Your task to perform on an android device: turn off improve location accuracy Image 0: 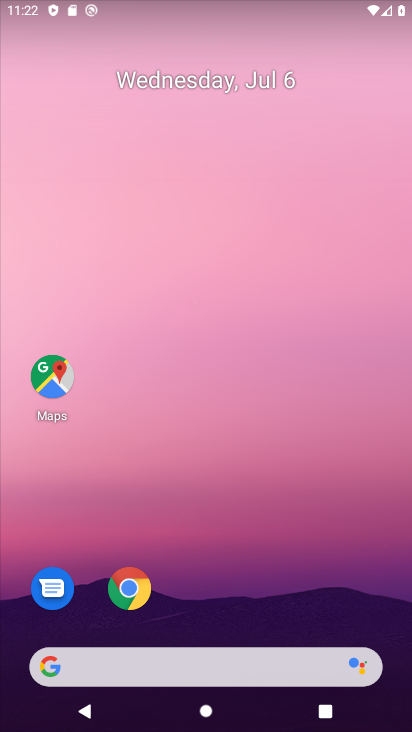
Step 0: drag from (228, 525) to (254, 2)
Your task to perform on an android device: turn off improve location accuracy Image 1: 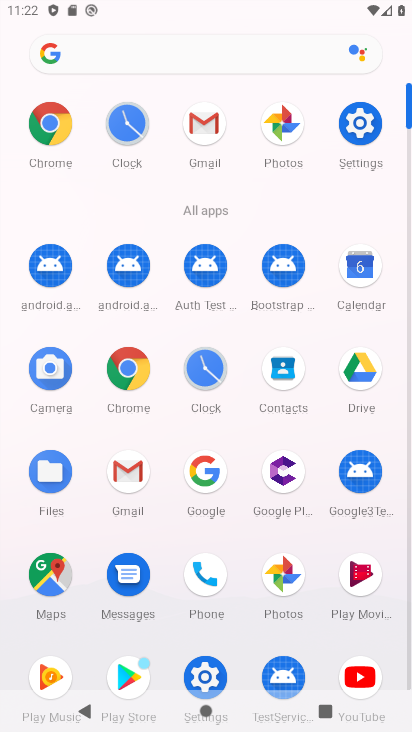
Step 1: click (351, 126)
Your task to perform on an android device: turn off improve location accuracy Image 2: 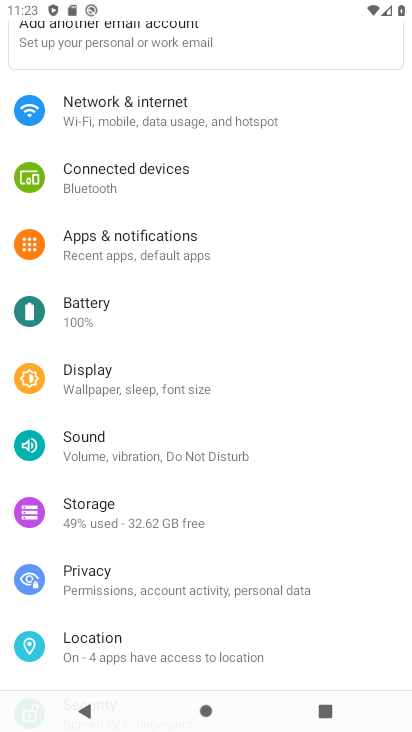
Step 2: drag from (160, 534) to (244, 122)
Your task to perform on an android device: turn off improve location accuracy Image 3: 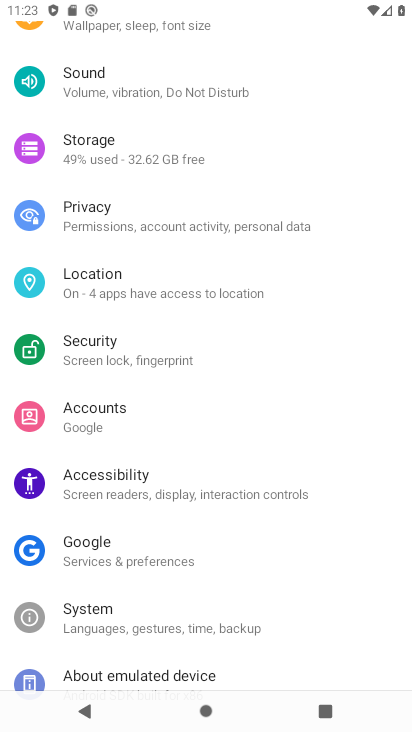
Step 3: drag from (160, 67) to (183, 414)
Your task to perform on an android device: turn off improve location accuracy Image 4: 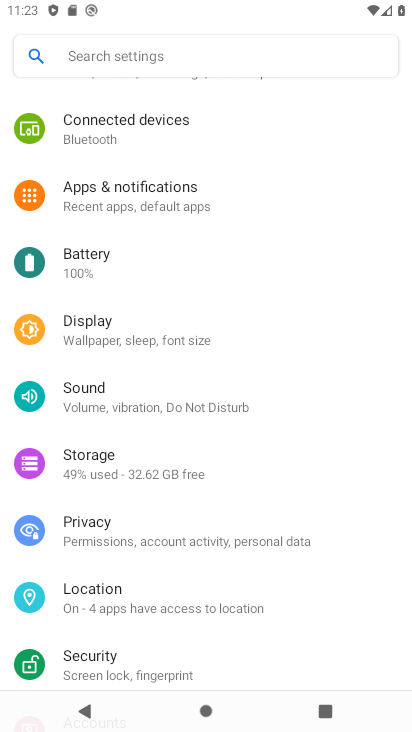
Step 4: click (125, 605)
Your task to perform on an android device: turn off improve location accuracy Image 5: 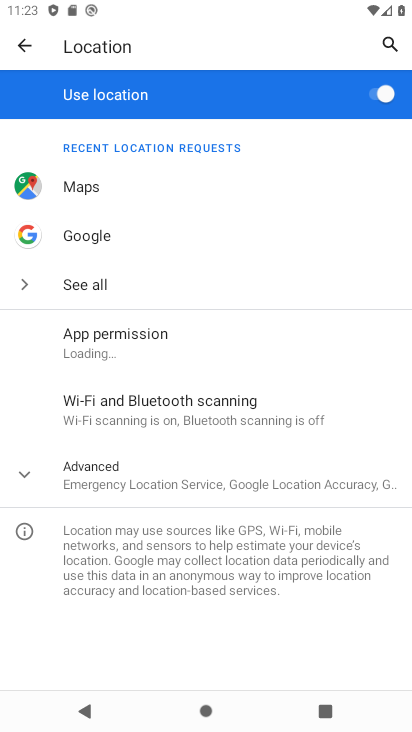
Step 5: click (139, 461)
Your task to perform on an android device: turn off improve location accuracy Image 6: 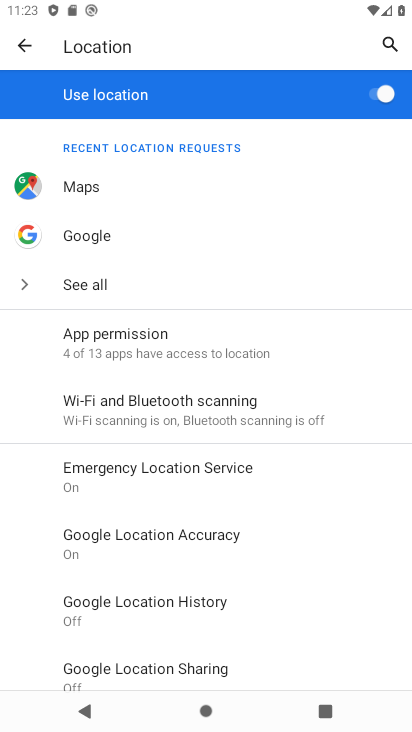
Step 6: drag from (124, 505) to (259, 177)
Your task to perform on an android device: turn off improve location accuracy Image 7: 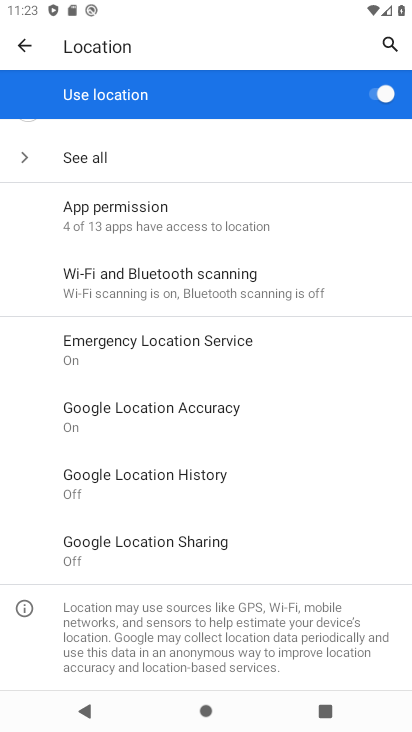
Step 7: click (158, 408)
Your task to perform on an android device: turn off improve location accuracy Image 8: 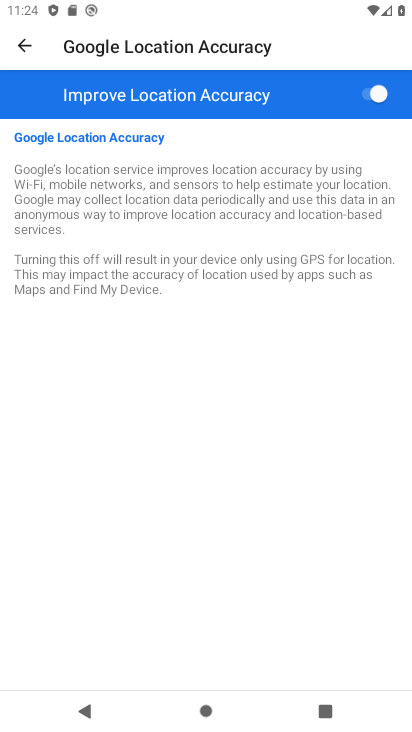
Step 8: drag from (97, 505) to (108, 236)
Your task to perform on an android device: turn off improve location accuracy Image 9: 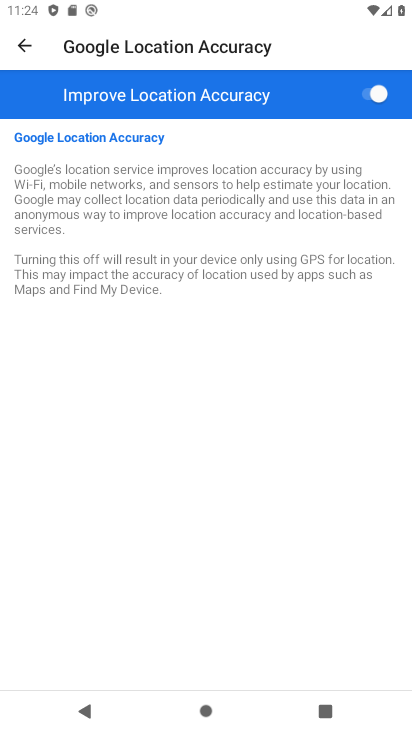
Step 9: click (367, 103)
Your task to perform on an android device: turn off improve location accuracy Image 10: 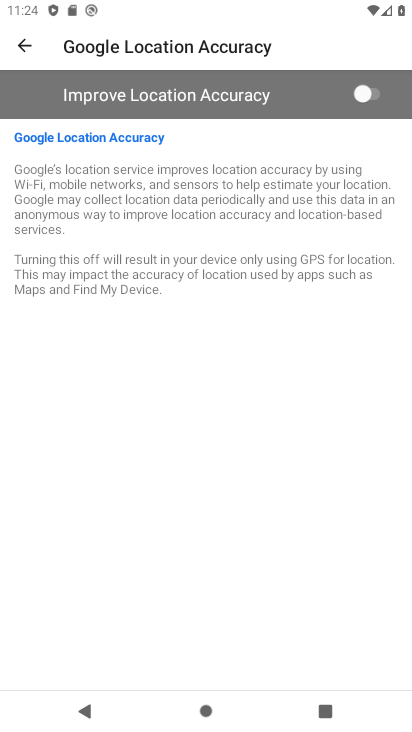
Step 10: task complete